Your task to perform on an android device: Open settings Image 0: 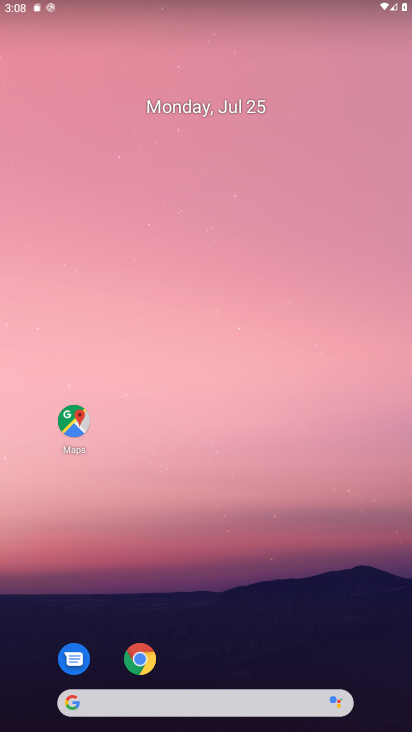
Step 0: drag from (239, 590) to (248, 165)
Your task to perform on an android device: Open settings Image 1: 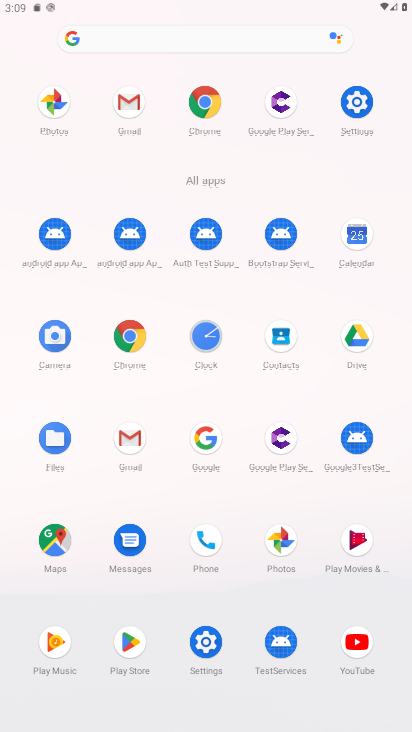
Step 1: click (355, 116)
Your task to perform on an android device: Open settings Image 2: 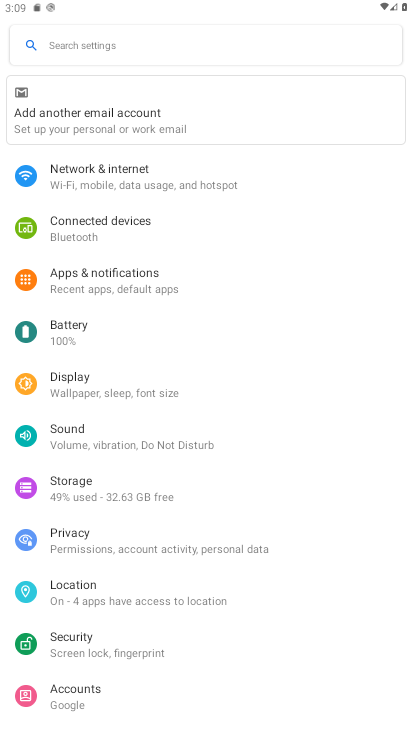
Step 2: task complete